Your task to perform on an android device: empty trash in the gmail app Image 0: 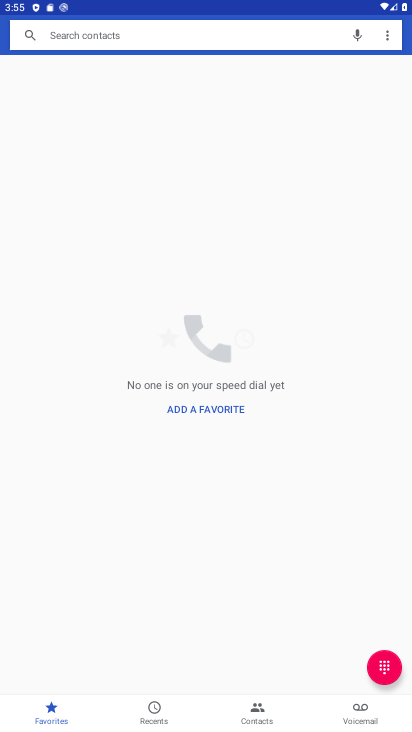
Step 0: press back button
Your task to perform on an android device: empty trash in the gmail app Image 1: 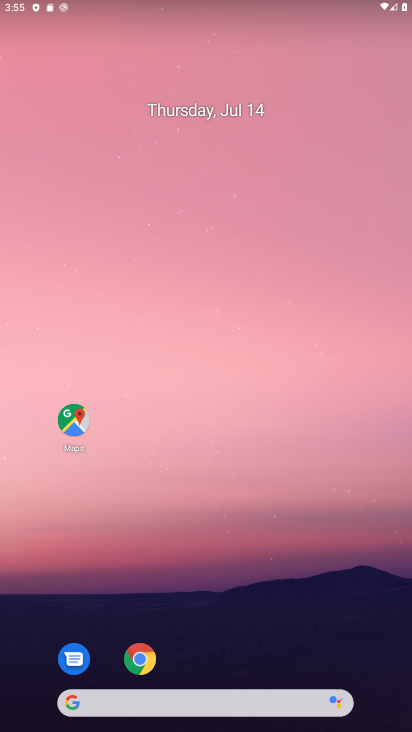
Step 1: drag from (268, 645) to (221, 189)
Your task to perform on an android device: empty trash in the gmail app Image 2: 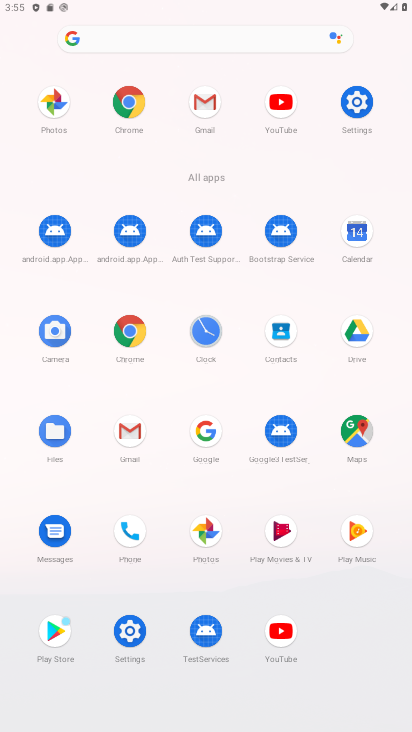
Step 2: click (212, 441)
Your task to perform on an android device: empty trash in the gmail app Image 3: 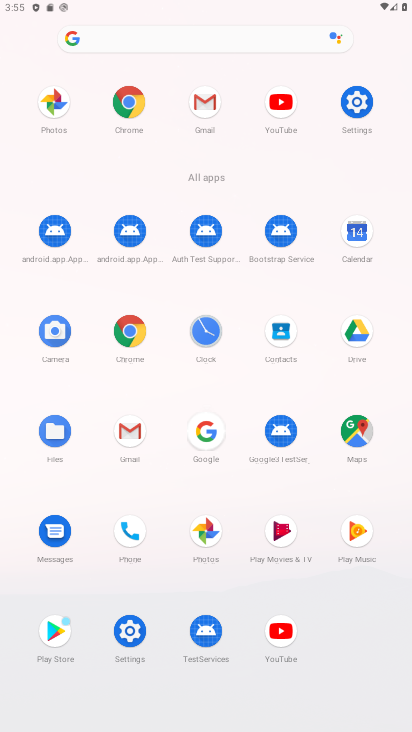
Step 3: click (212, 441)
Your task to perform on an android device: empty trash in the gmail app Image 4: 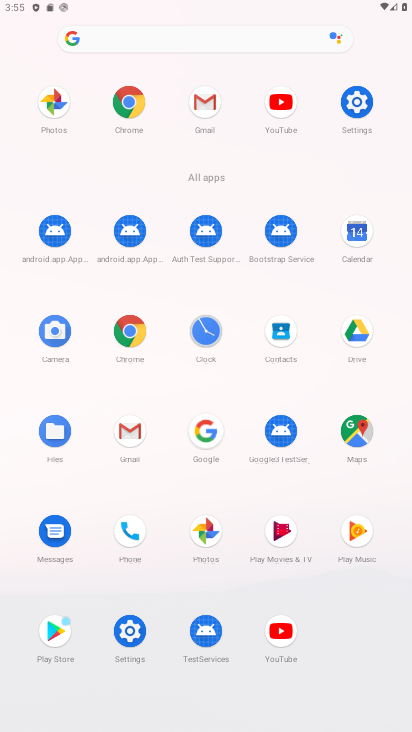
Step 4: click (210, 440)
Your task to perform on an android device: empty trash in the gmail app Image 5: 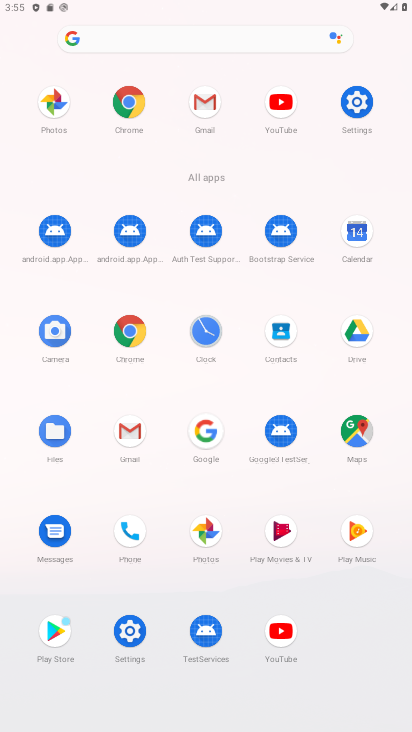
Step 5: click (211, 439)
Your task to perform on an android device: empty trash in the gmail app Image 6: 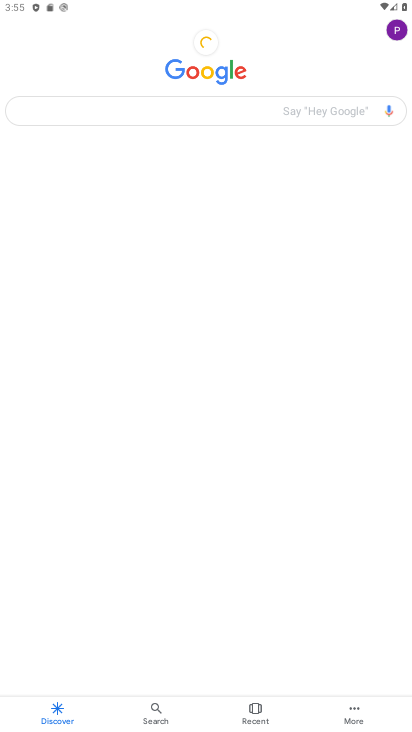
Step 6: click (310, 71)
Your task to perform on an android device: empty trash in the gmail app Image 7: 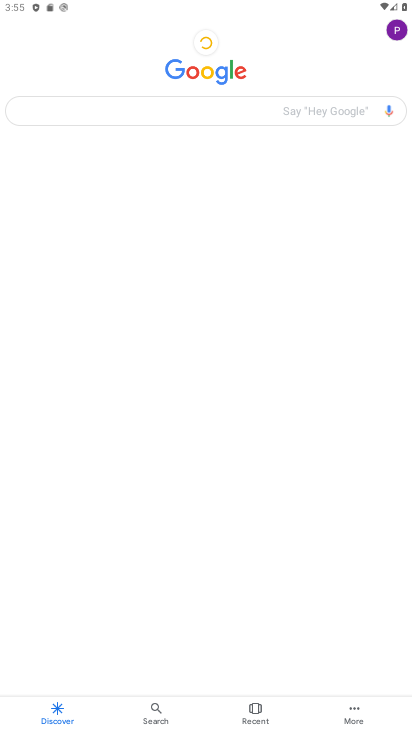
Step 7: click (311, 72)
Your task to perform on an android device: empty trash in the gmail app Image 8: 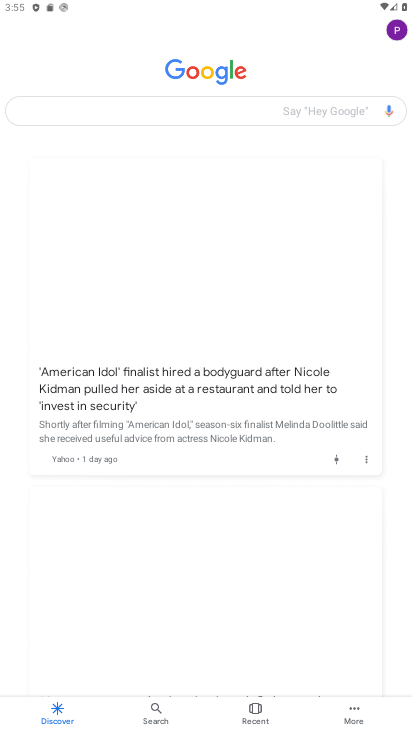
Step 8: click (313, 74)
Your task to perform on an android device: empty trash in the gmail app Image 9: 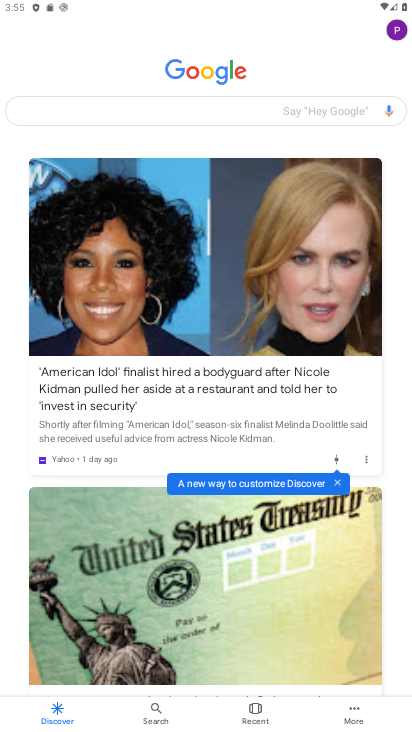
Step 9: click (211, 118)
Your task to perform on an android device: empty trash in the gmail app Image 10: 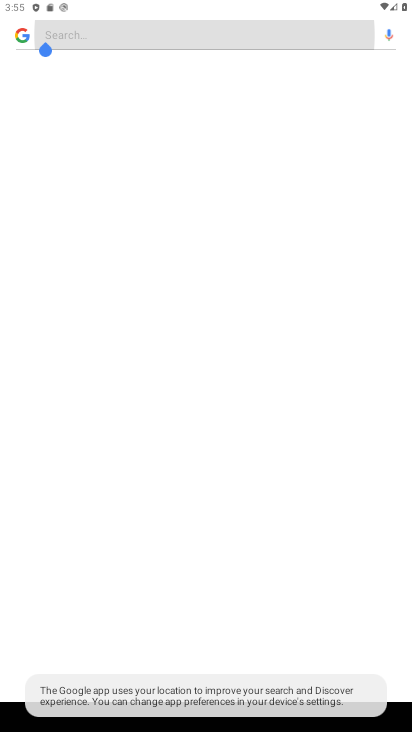
Step 10: drag from (349, 212) to (338, 2)
Your task to perform on an android device: empty trash in the gmail app Image 11: 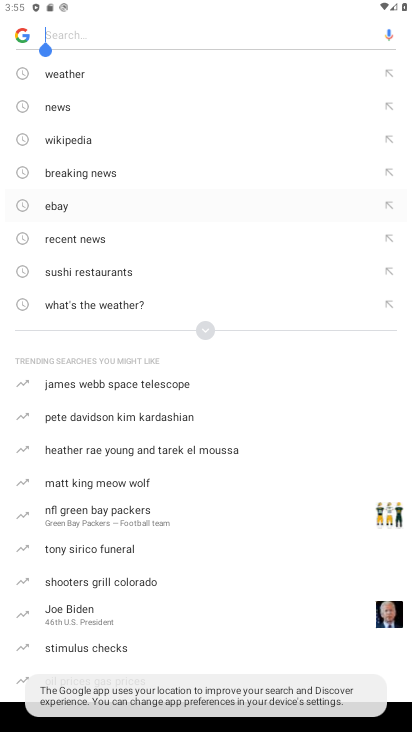
Step 11: drag from (252, 584) to (283, 228)
Your task to perform on an android device: empty trash in the gmail app Image 12: 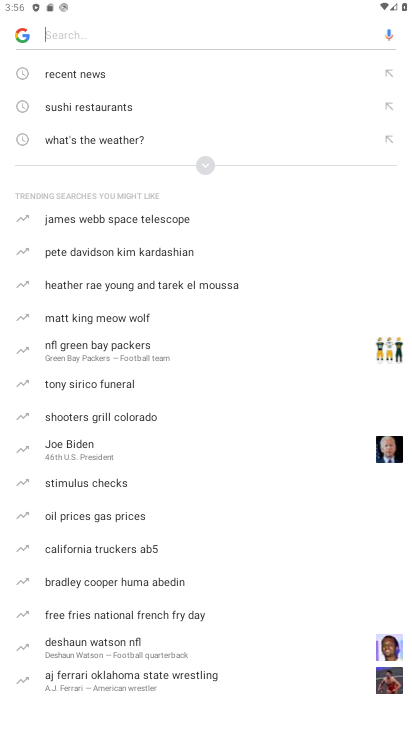
Step 12: press back button
Your task to perform on an android device: empty trash in the gmail app Image 13: 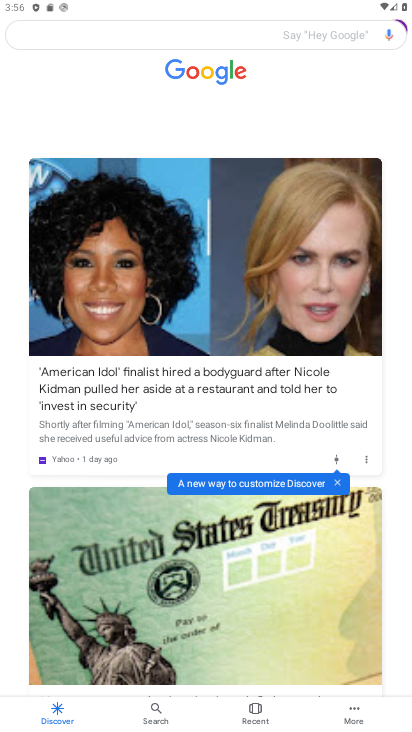
Step 13: press back button
Your task to perform on an android device: empty trash in the gmail app Image 14: 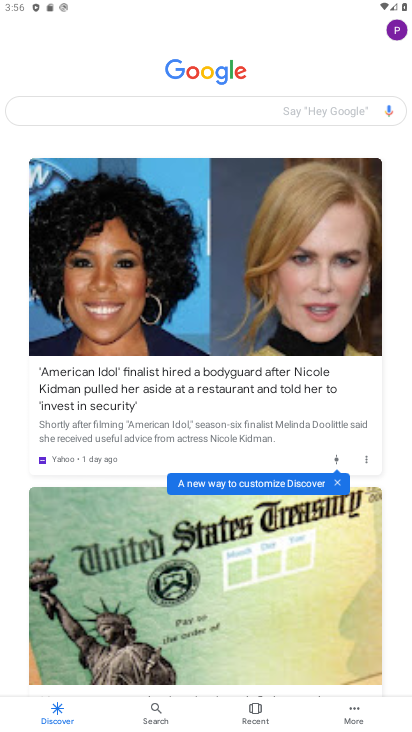
Step 14: press back button
Your task to perform on an android device: empty trash in the gmail app Image 15: 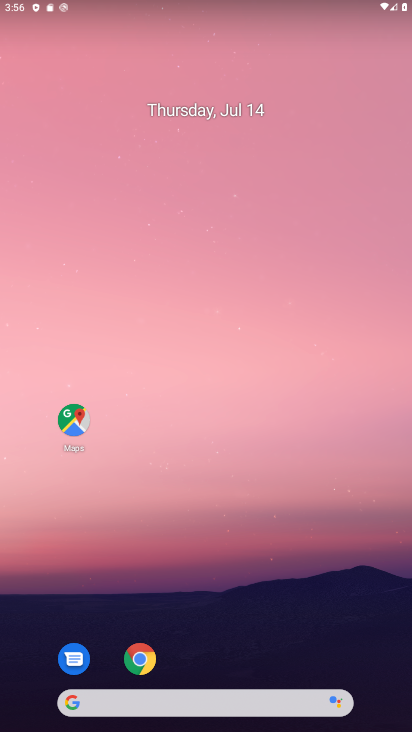
Step 15: drag from (281, 562) to (143, 39)
Your task to perform on an android device: empty trash in the gmail app Image 16: 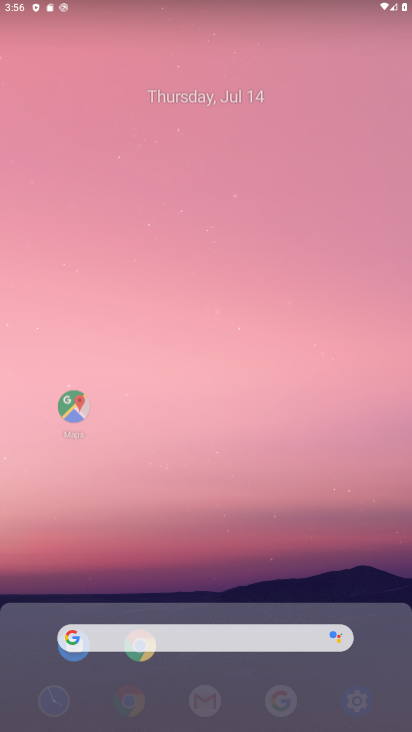
Step 16: drag from (223, 458) to (200, 42)
Your task to perform on an android device: empty trash in the gmail app Image 17: 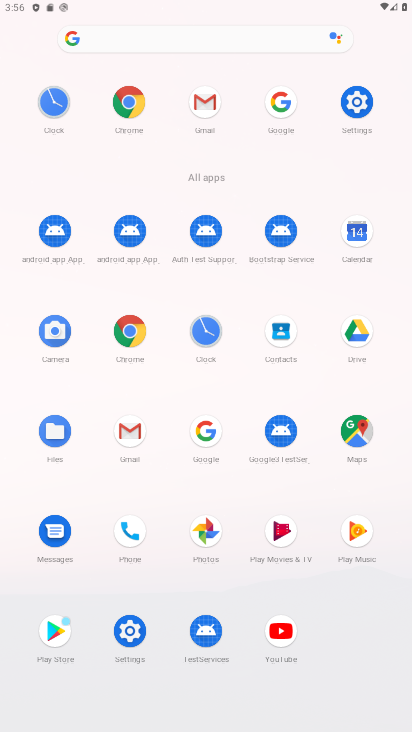
Step 17: click (128, 435)
Your task to perform on an android device: empty trash in the gmail app Image 18: 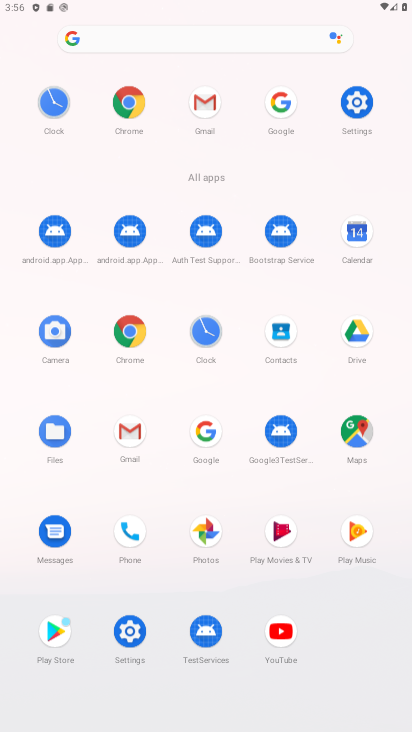
Step 18: click (126, 433)
Your task to perform on an android device: empty trash in the gmail app Image 19: 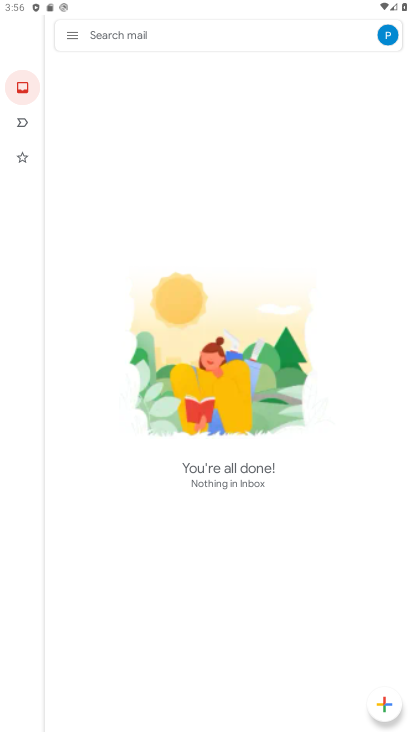
Step 19: click (62, 30)
Your task to perform on an android device: empty trash in the gmail app Image 20: 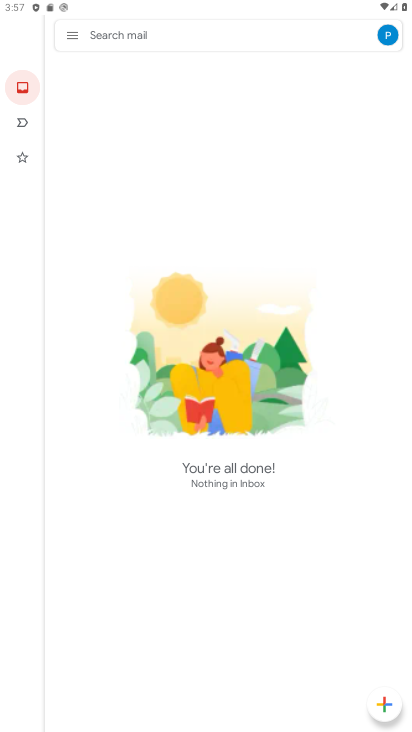
Step 20: click (62, 43)
Your task to perform on an android device: empty trash in the gmail app Image 21: 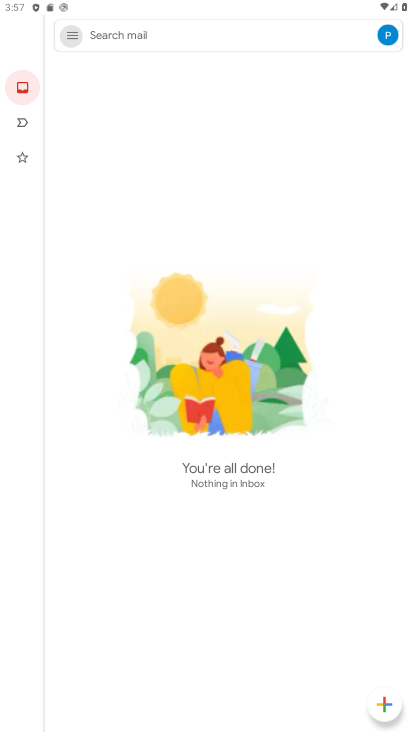
Step 21: click (72, 44)
Your task to perform on an android device: empty trash in the gmail app Image 22: 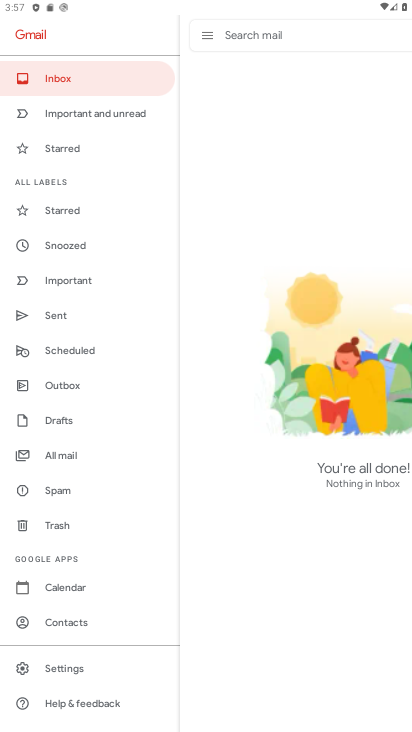
Step 22: click (73, 42)
Your task to perform on an android device: empty trash in the gmail app Image 23: 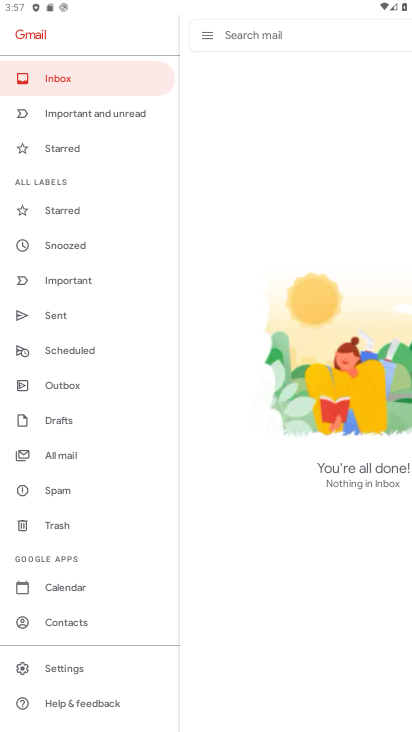
Step 23: click (49, 509)
Your task to perform on an android device: empty trash in the gmail app Image 24: 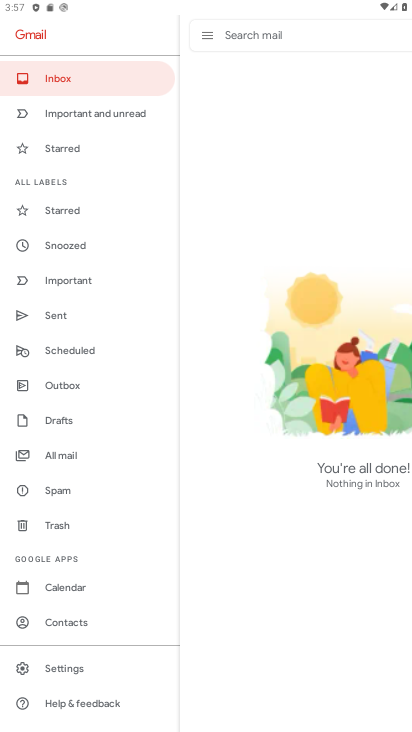
Step 24: click (52, 520)
Your task to perform on an android device: empty trash in the gmail app Image 25: 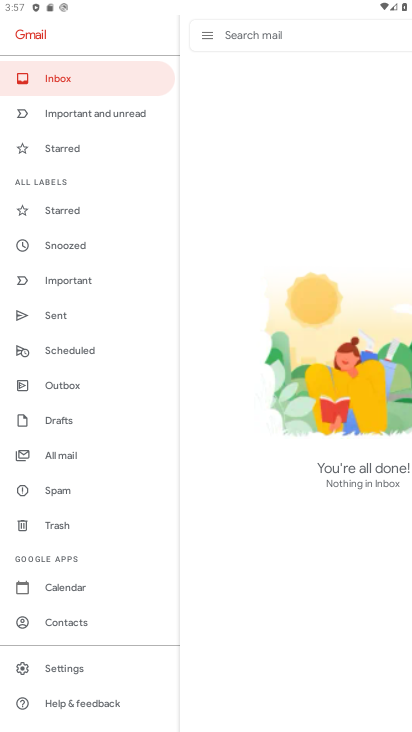
Step 25: click (54, 520)
Your task to perform on an android device: empty trash in the gmail app Image 26: 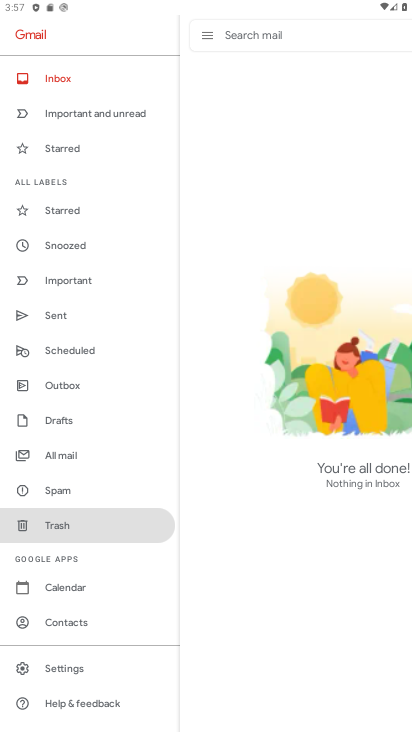
Step 26: click (55, 520)
Your task to perform on an android device: empty trash in the gmail app Image 27: 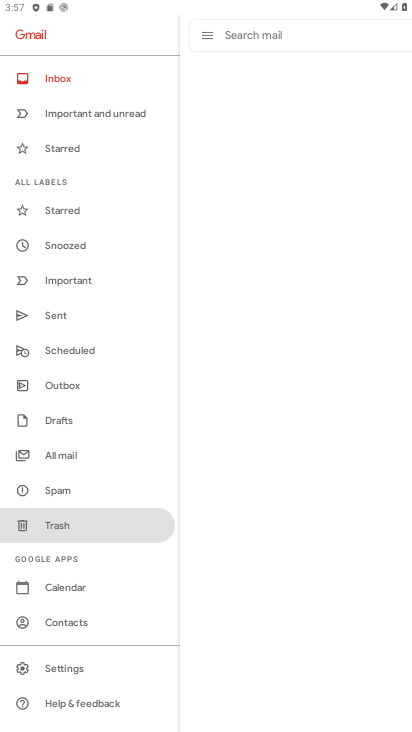
Step 27: click (55, 520)
Your task to perform on an android device: empty trash in the gmail app Image 28: 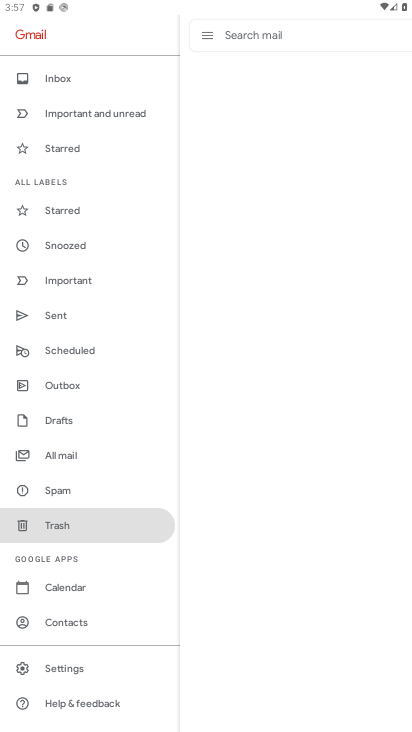
Step 28: click (55, 520)
Your task to perform on an android device: empty trash in the gmail app Image 29: 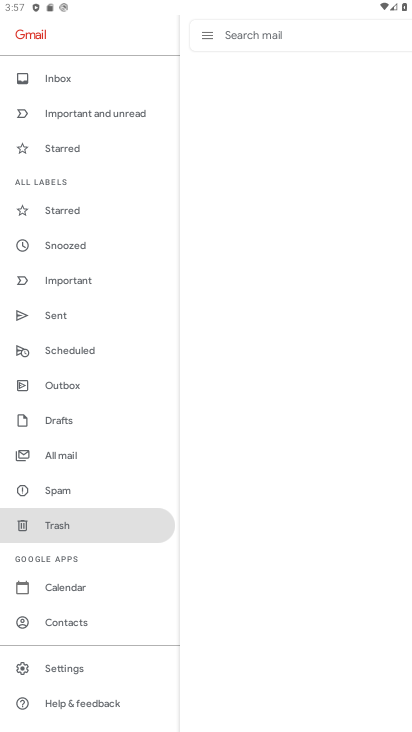
Step 29: click (55, 520)
Your task to perform on an android device: empty trash in the gmail app Image 30: 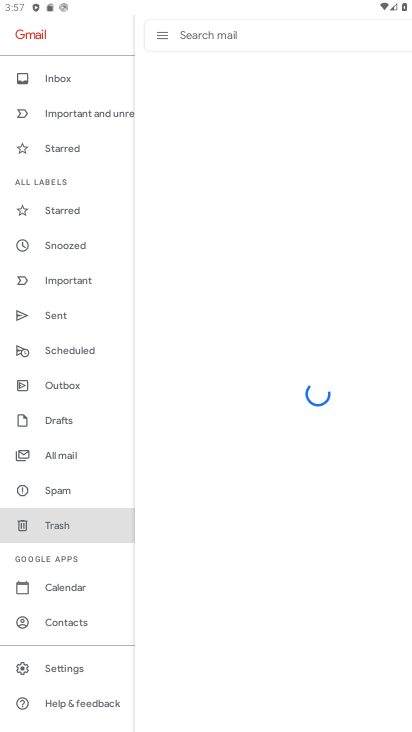
Step 30: click (55, 520)
Your task to perform on an android device: empty trash in the gmail app Image 31: 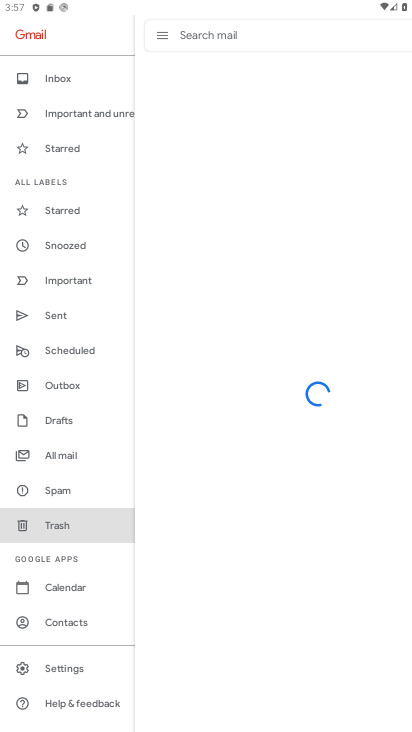
Step 31: click (55, 520)
Your task to perform on an android device: empty trash in the gmail app Image 32: 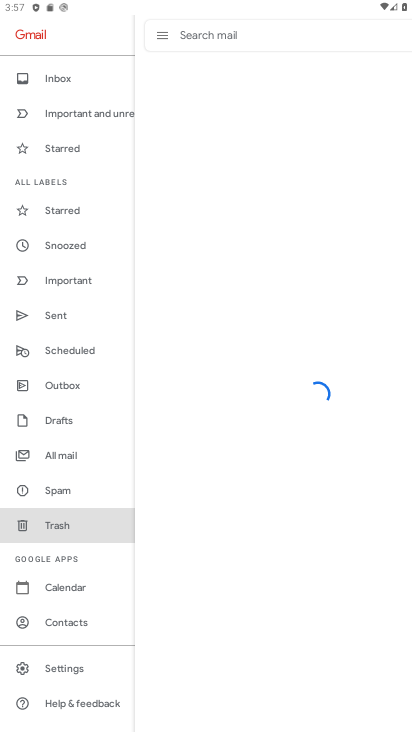
Step 32: click (55, 520)
Your task to perform on an android device: empty trash in the gmail app Image 33: 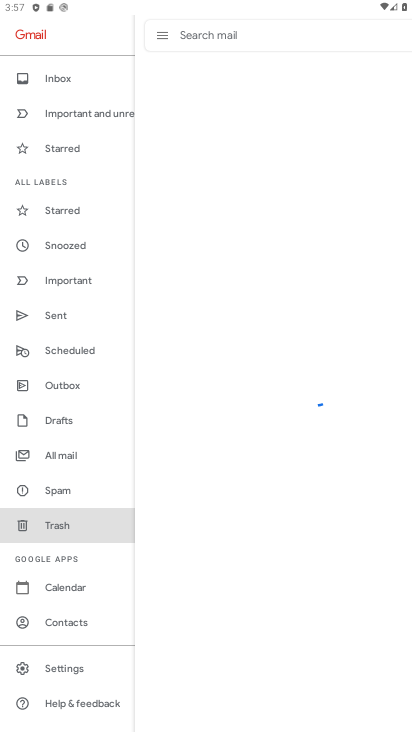
Step 33: click (55, 520)
Your task to perform on an android device: empty trash in the gmail app Image 34: 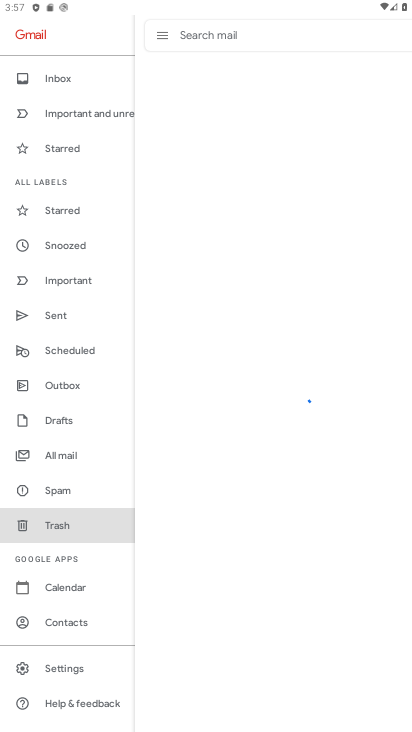
Step 34: click (55, 520)
Your task to perform on an android device: empty trash in the gmail app Image 35: 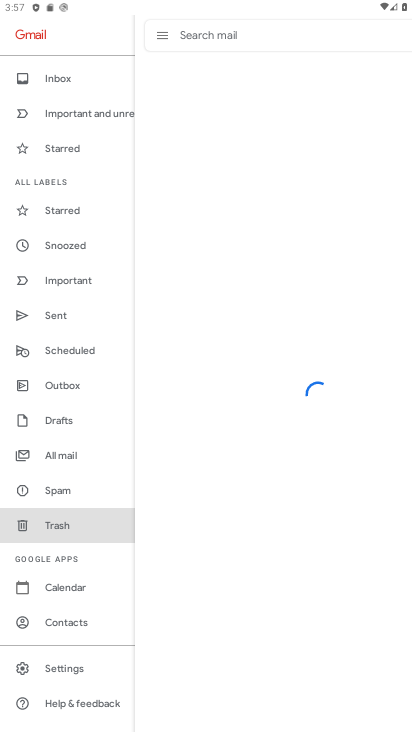
Step 35: click (55, 520)
Your task to perform on an android device: empty trash in the gmail app Image 36: 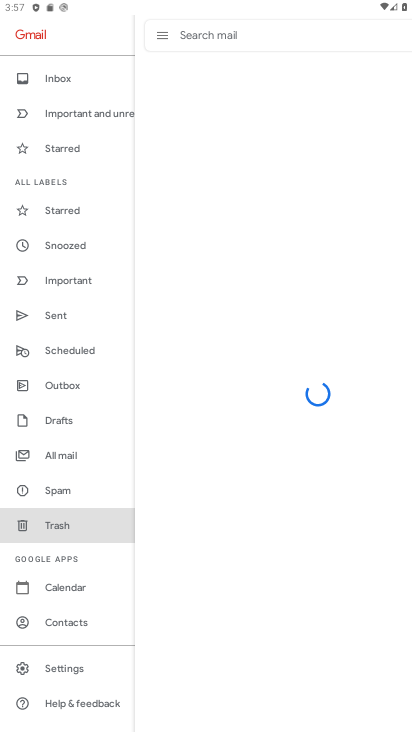
Step 36: click (64, 521)
Your task to perform on an android device: empty trash in the gmail app Image 37: 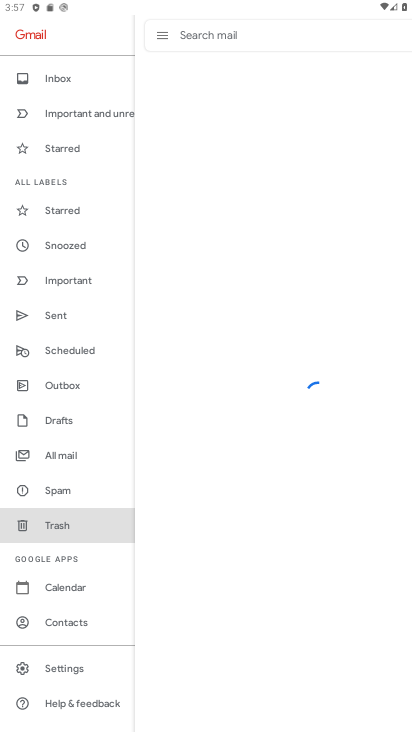
Step 37: click (65, 522)
Your task to perform on an android device: empty trash in the gmail app Image 38: 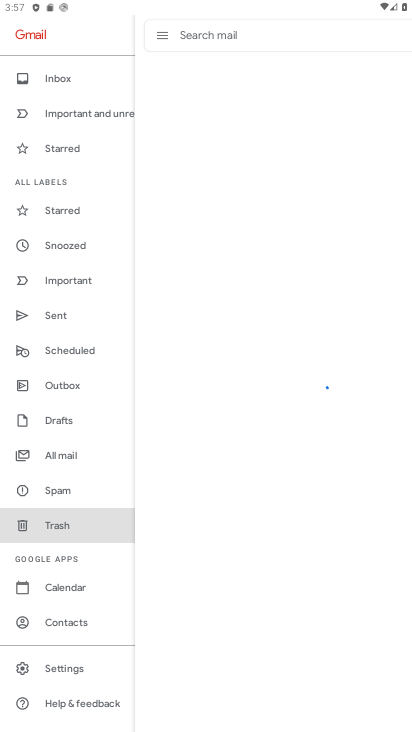
Step 38: click (66, 523)
Your task to perform on an android device: empty trash in the gmail app Image 39: 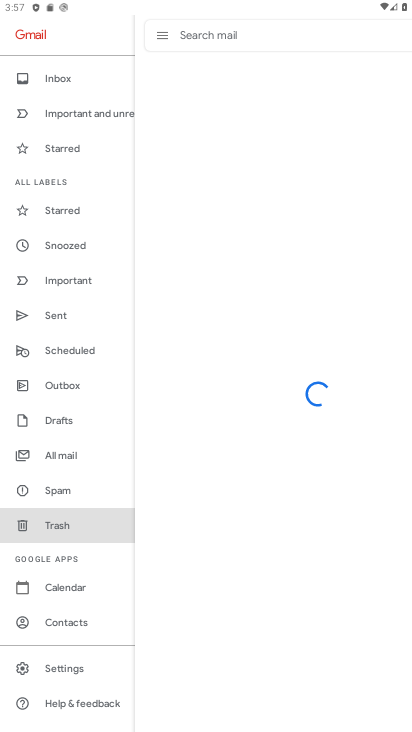
Step 39: click (68, 521)
Your task to perform on an android device: empty trash in the gmail app Image 40: 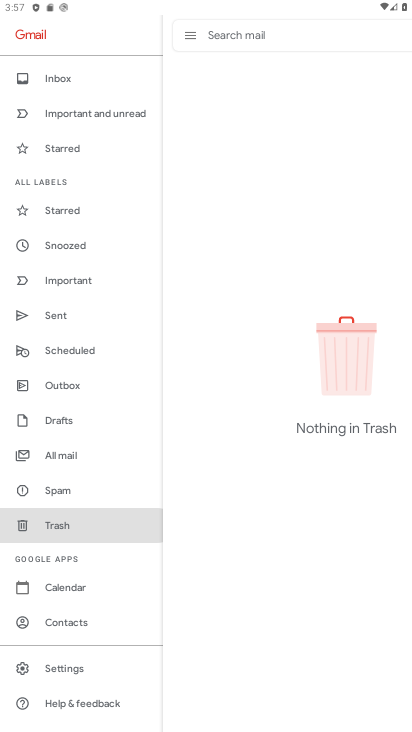
Step 40: click (68, 521)
Your task to perform on an android device: empty trash in the gmail app Image 41: 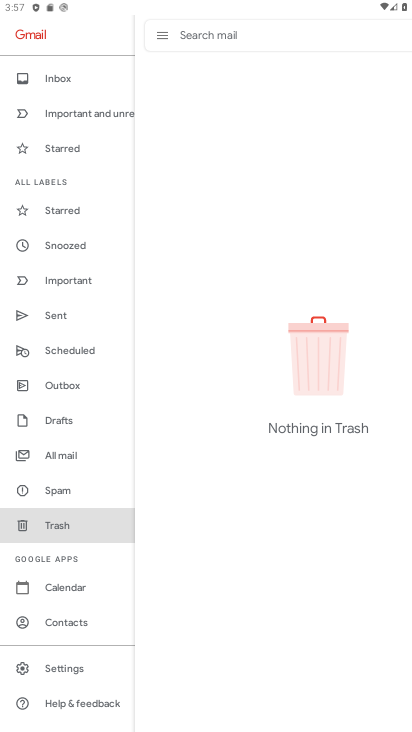
Step 41: click (67, 520)
Your task to perform on an android device: empty trash in the gmail app Image 42: 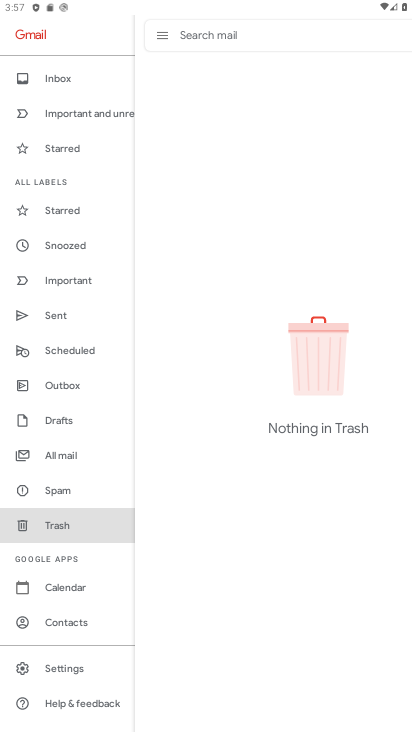
Step 42: click (67, 520)
Your task to perform on an android device: empty trash in the gmail app Image 43: 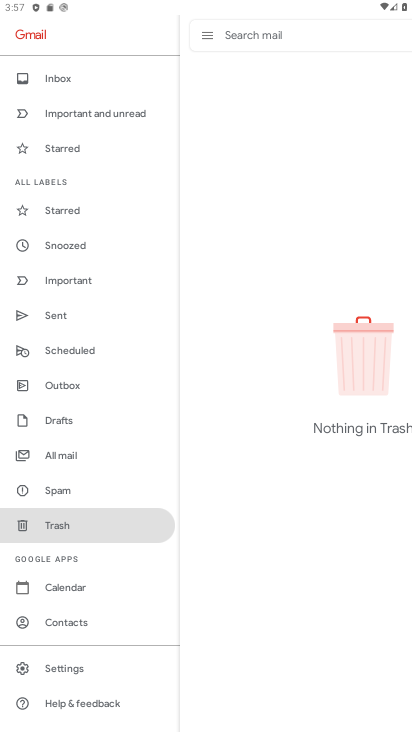
Step 43: click (67, 520)
Your task to perform on an android device: empty trash in the gmail app Image 44: 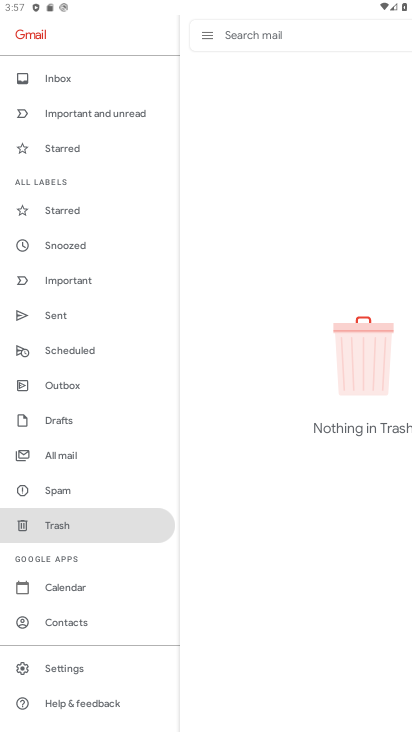
Step 44: click (66, 518)
Your task to perform on an android device: empty trash in the gmail app Image 45: 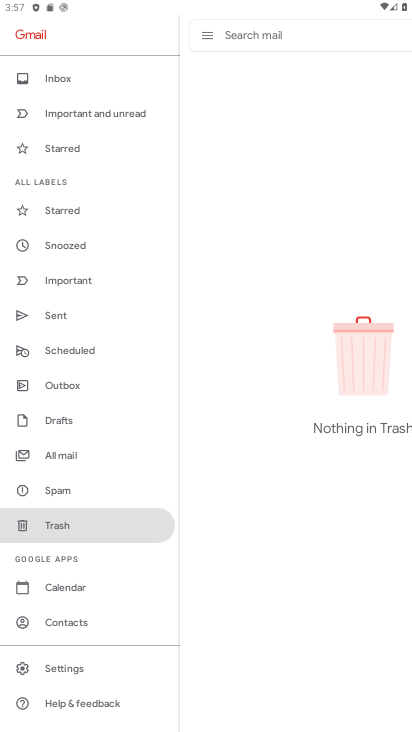
Step 45: click (66, 518)
Your task to perform on an android device: empty trash in the gmail app Image 46: 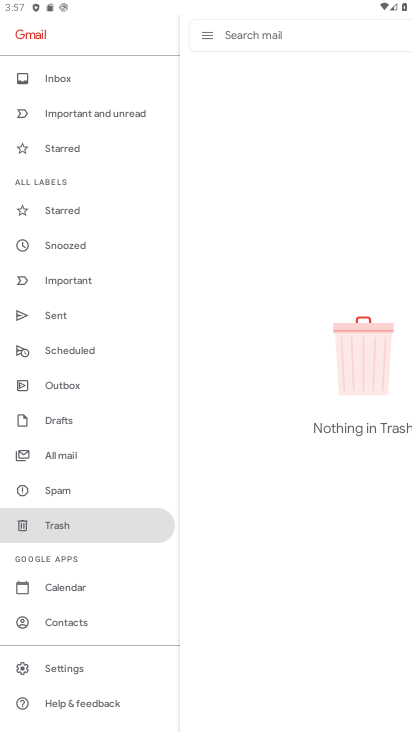
Step 46: click (141, 528)
Your task to perform on an android device: empty trash in the gmail app Image 47: 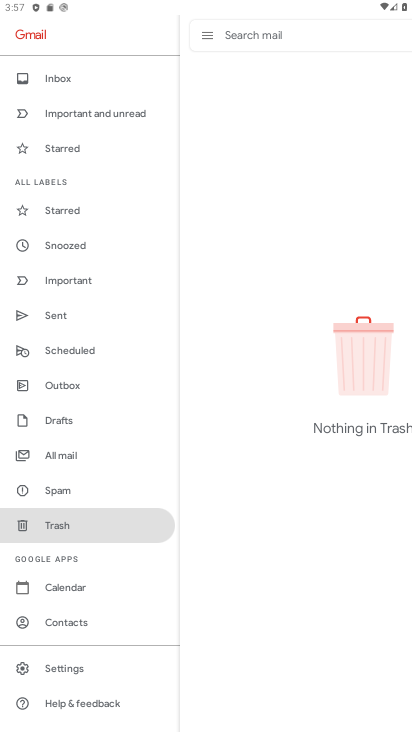
Step 47: click (138, 529)
Your task to perform on an android device: empty trash in the gmail app Image 48: 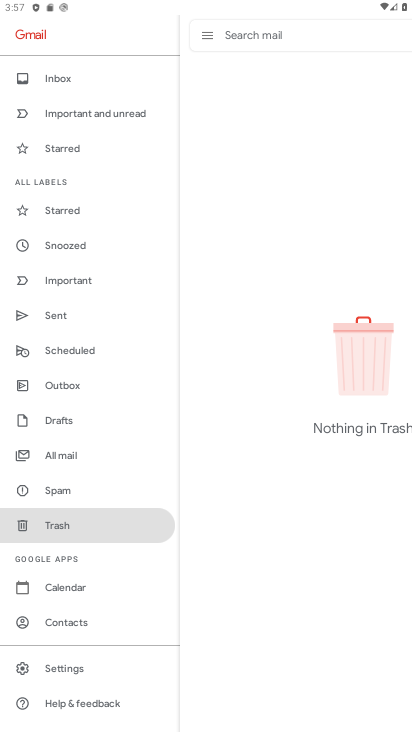
Step 48: click (138, 529)
Your task to perform on an android device: empty trash in the gmail app Image 49: 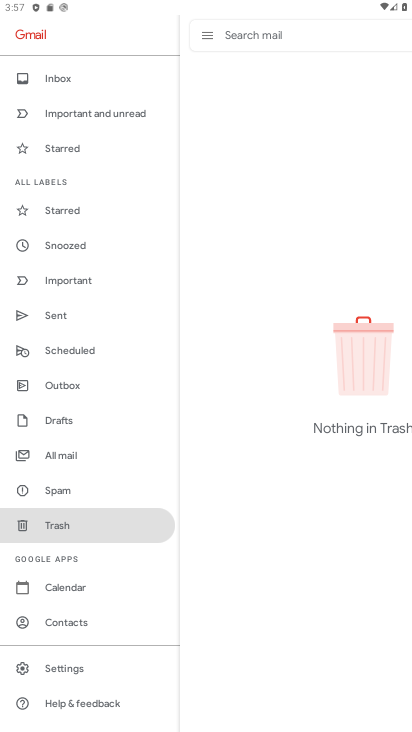
Step 49: click (136, 529)
Your task to perform on an android device: empty trash in the gmail app Image 50: 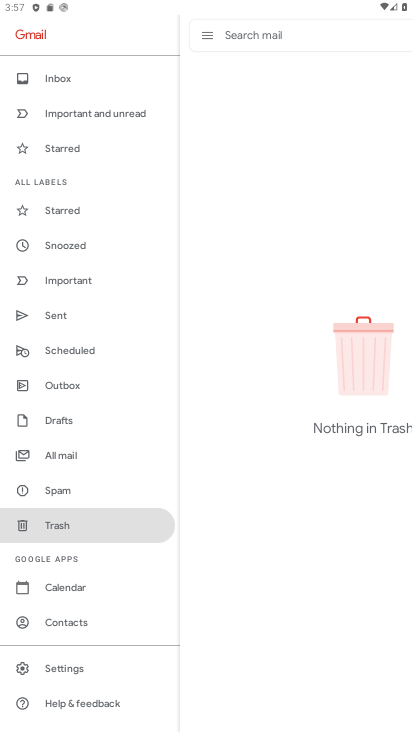
Step 50: click (136, 529)
Your task to perform on an android device: empty trash in the gmail app Image 51: 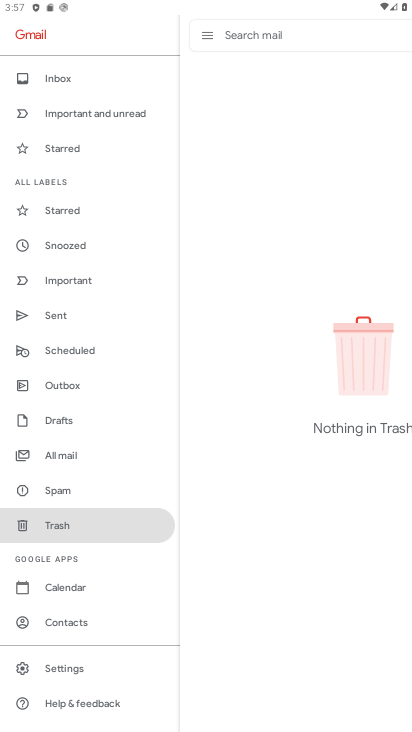
Step 51: task complete